Your task to perform on an android device: Go to privacy settings Image 0: 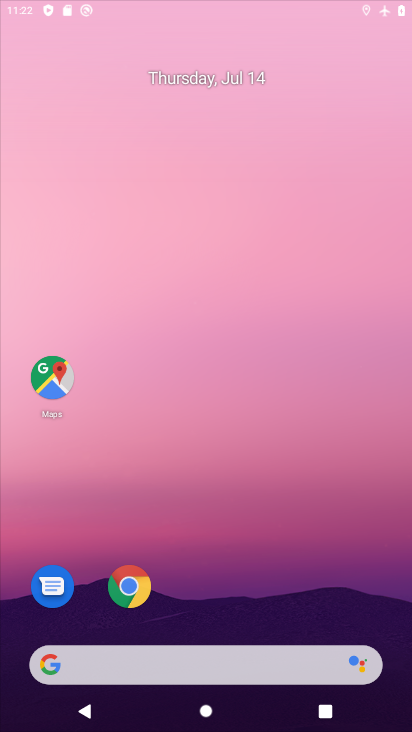
Step 0: click (244, 19)
Your task to perform on an android device: Go to privacy settings Image 1: 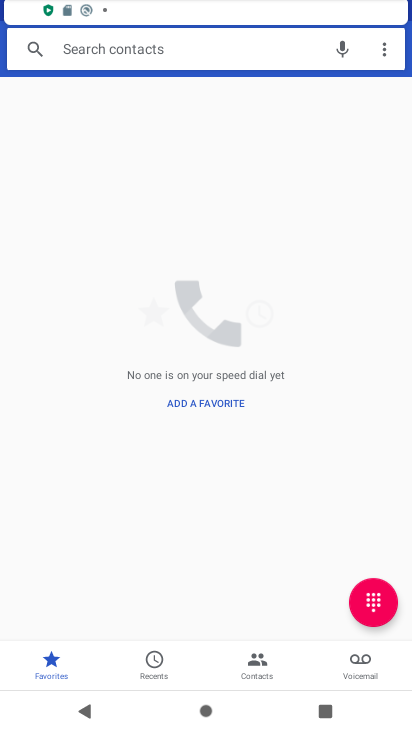
Step 1: press home button
Your task to perform on an android device: Go to privacy settings Image 2: 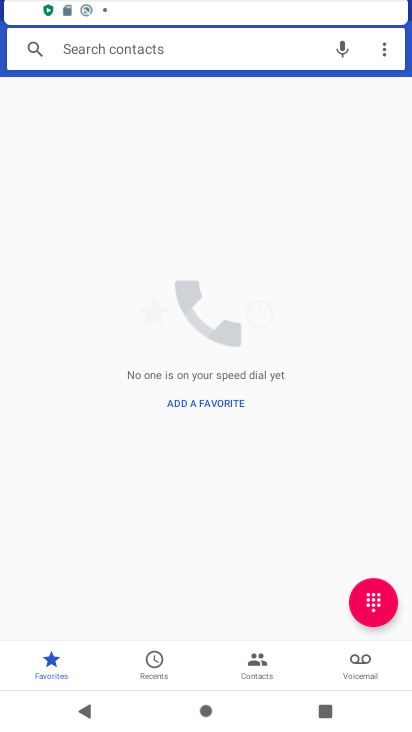
Step 2: drag from (244, 19) to (411, 432)
Your task to perform on an android device: Go to privacy settings Image 3: 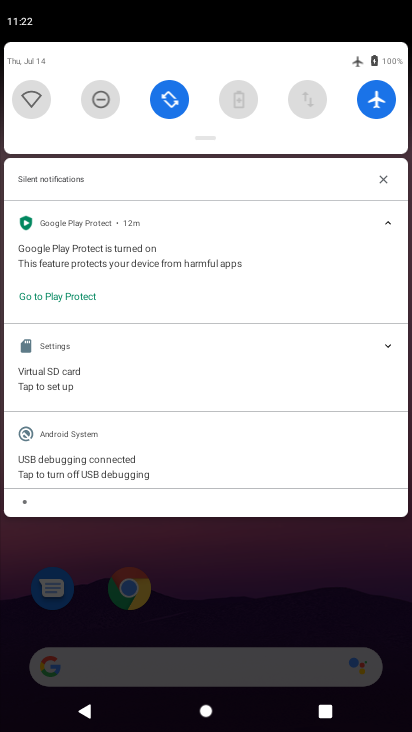
Step 3: drag from (232, 619) to (241, 2)
Your task to perform on an android device: Go to privacy settings Image 4: 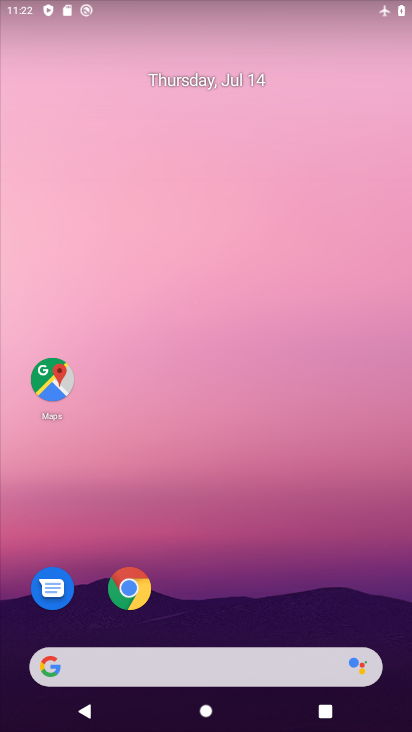
Step 4: drag from (212, 627) to (170, 29)
Your task to perform on an android device: Go to privacy settings Image 5: 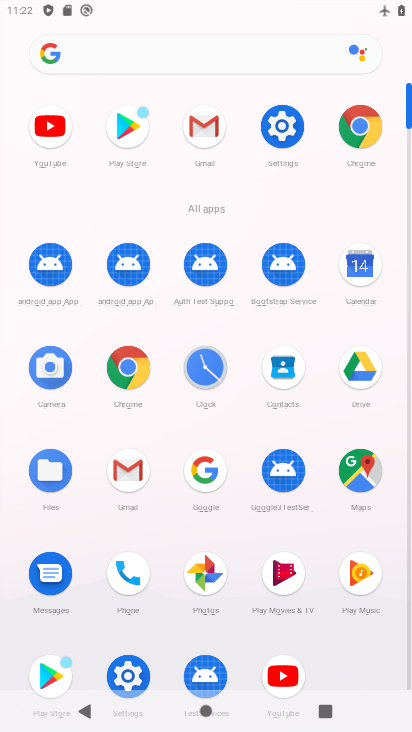
Step 5: click (289, 139)
Your task to perform on an android device: Go to privacy settings Image 6: 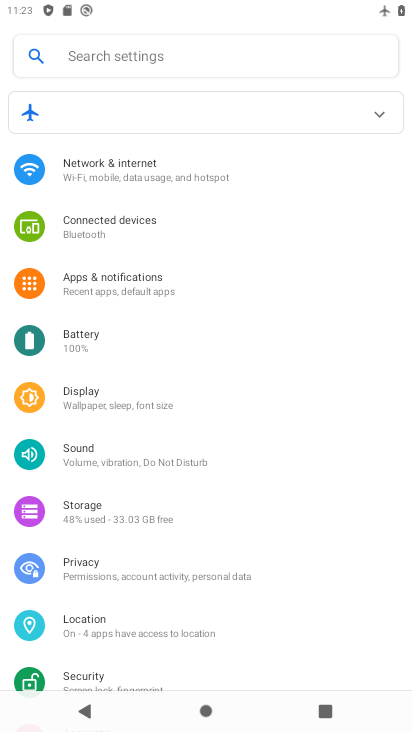
Step 6: click (113, 568)
Your task to perform on an android device: Go to privacy settings Image 7: 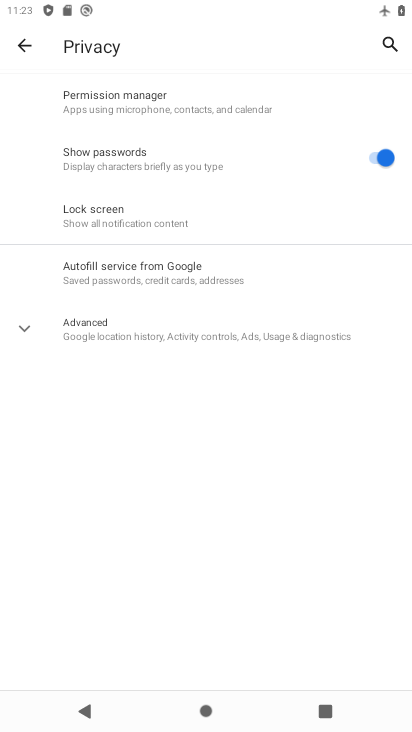
Step 7: task complete